Your task to perform on an android device: When is my next appointment? Image 0: 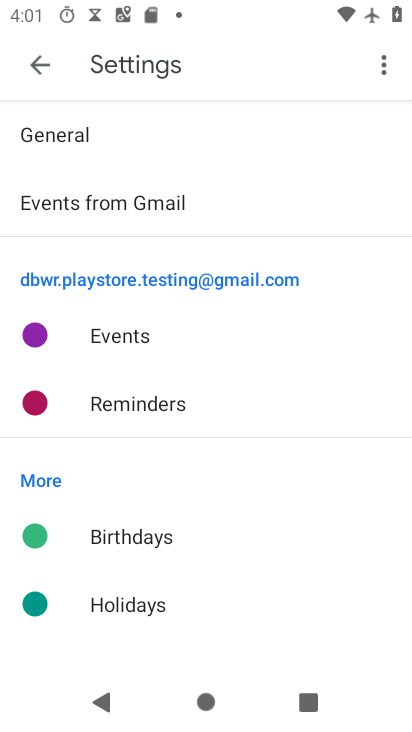
Step 0: press home button
Your task to perform on an android device: When is my next appointment? Image 1: 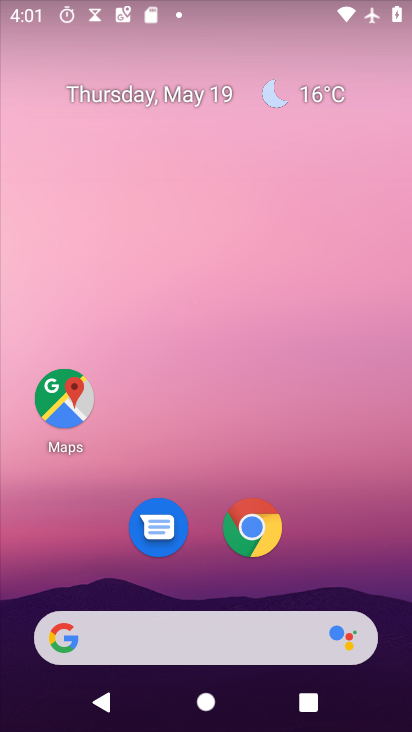
Step 1: drag from (346, 547) to (204, 47)
Your task to perform on an android device: When is my next appointment? Image 2: 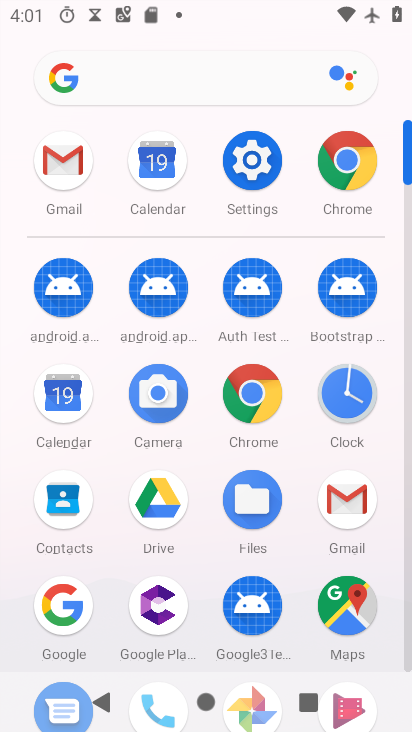
Step 2: click (164, 175)
Your task to perform on an android device: When is my next appointment? Image 3: 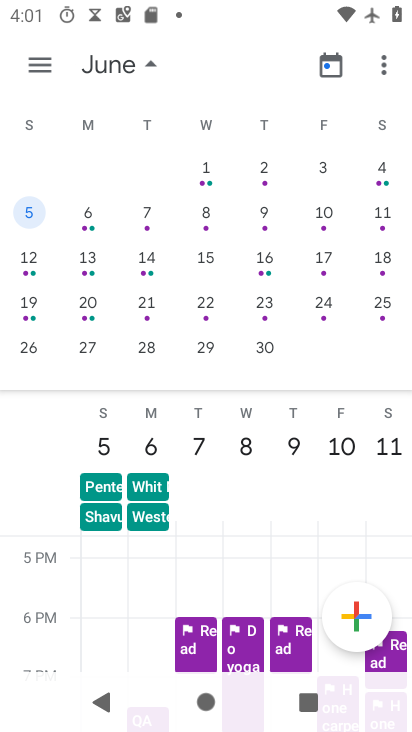
Step 3: drag from (36, 632) to (53, 221)
Your task to perform on an android device: When is my next appointment? Image 4: 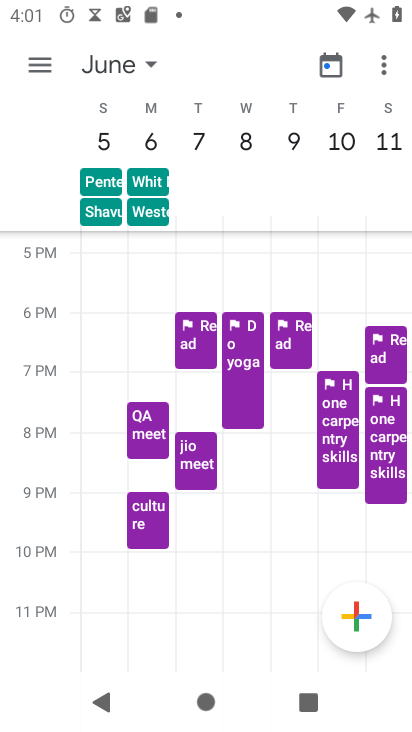
Step 4: drag from (47, 594) to (56, 187)
Your task to perform on an android device: When is my next appointment? Image 5: 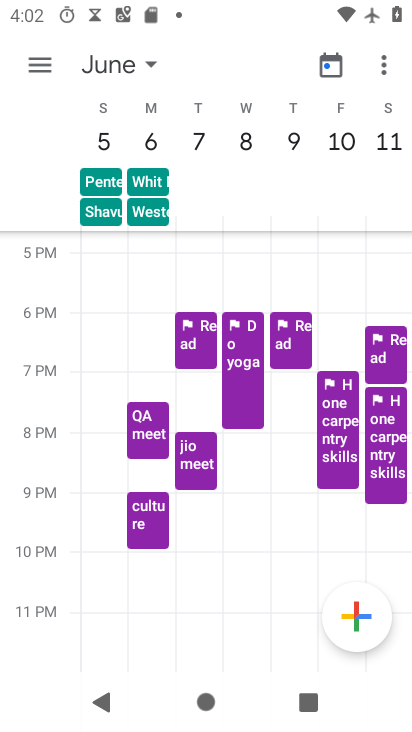
Step 5: click (133, 66)
Your task to perform on an android device: When is my next appointment? Image 6: 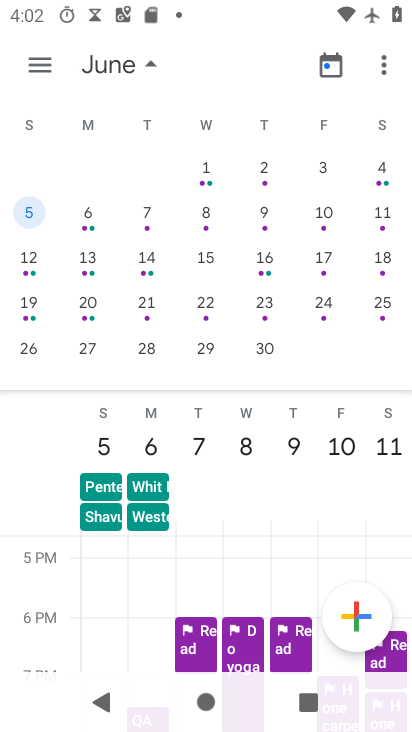
Step 6: task complete